Your task to perform on an android device: open app "Airtel Thanks" (install if not already installed) Image 0: 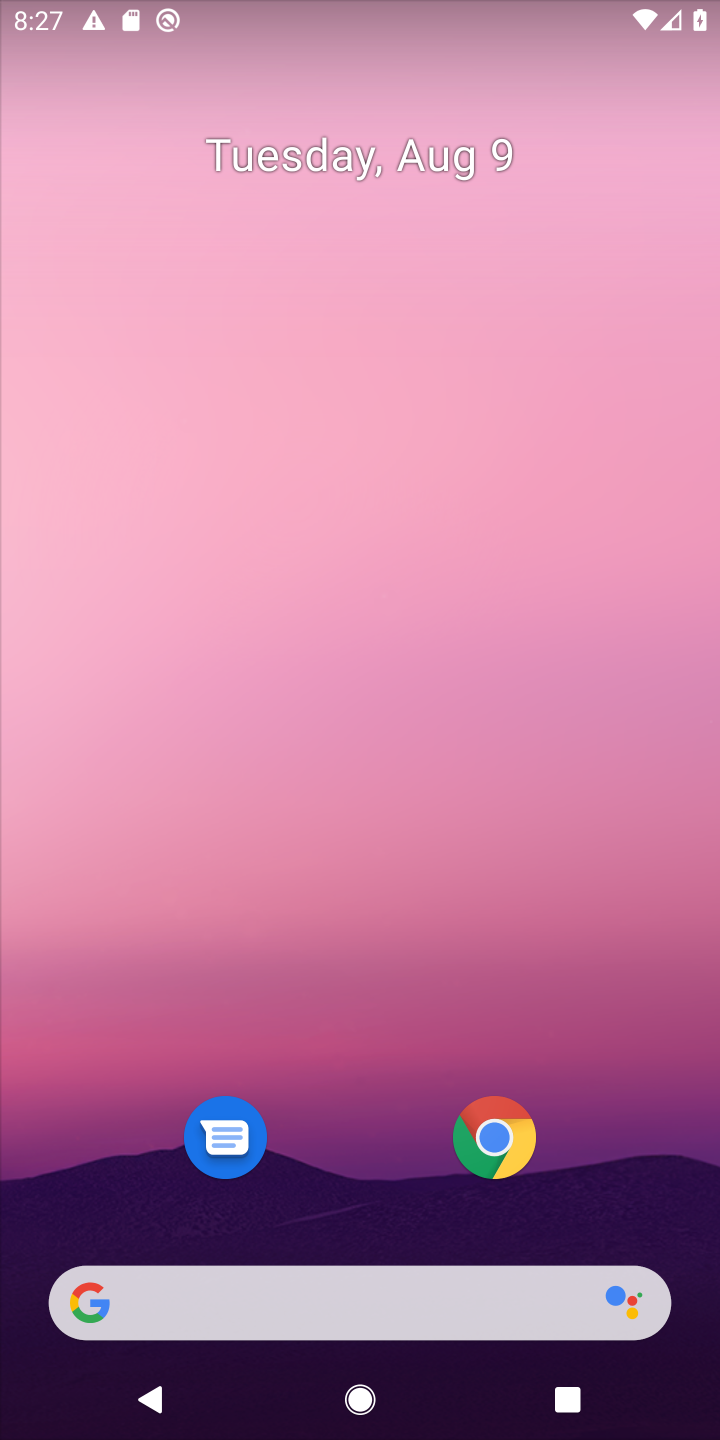
Step 0: press home button
Your task to perform on an android device: open app "Airtel Thanks" (install if not already installed) Image 1: 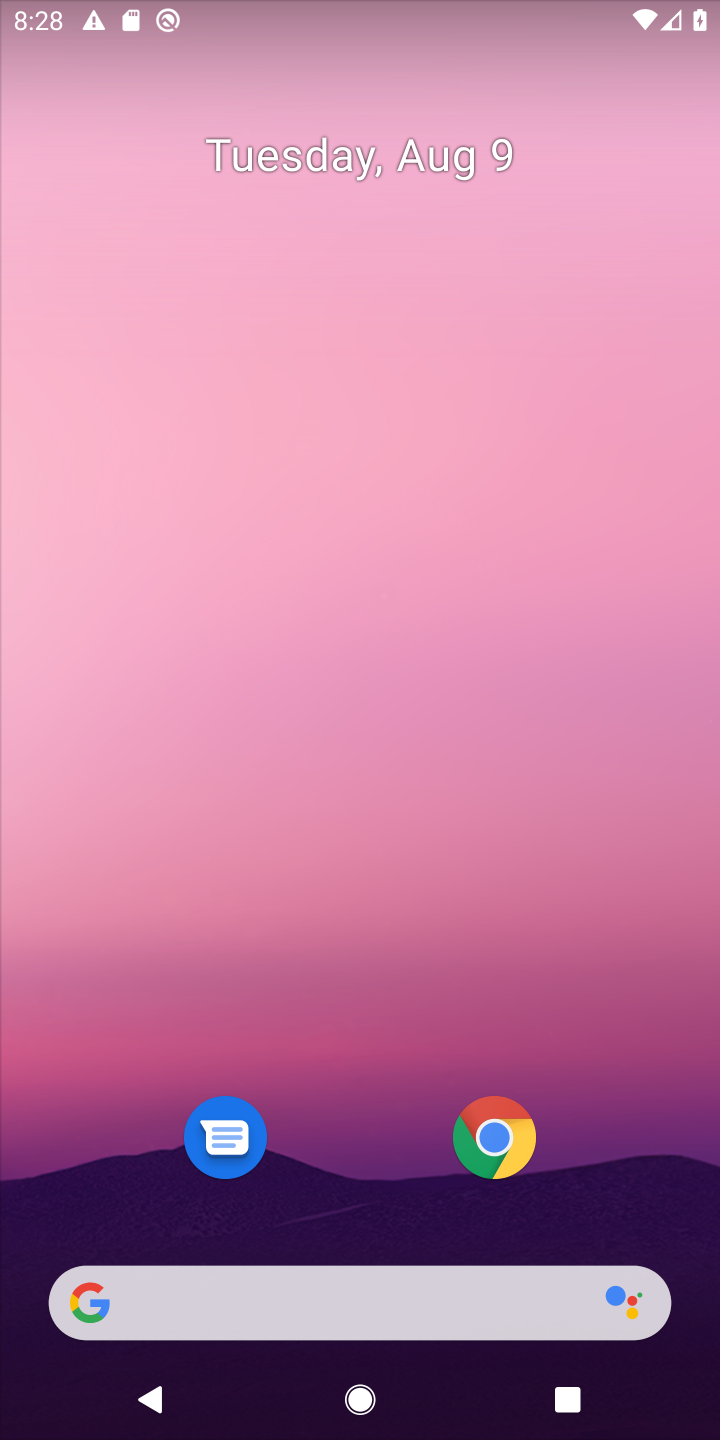
Step 1: drag from (632, 1142) to (607, 178)
Your task to perform on an android device: open app "Airtel Thanks" (install if not already installed) Image 2: 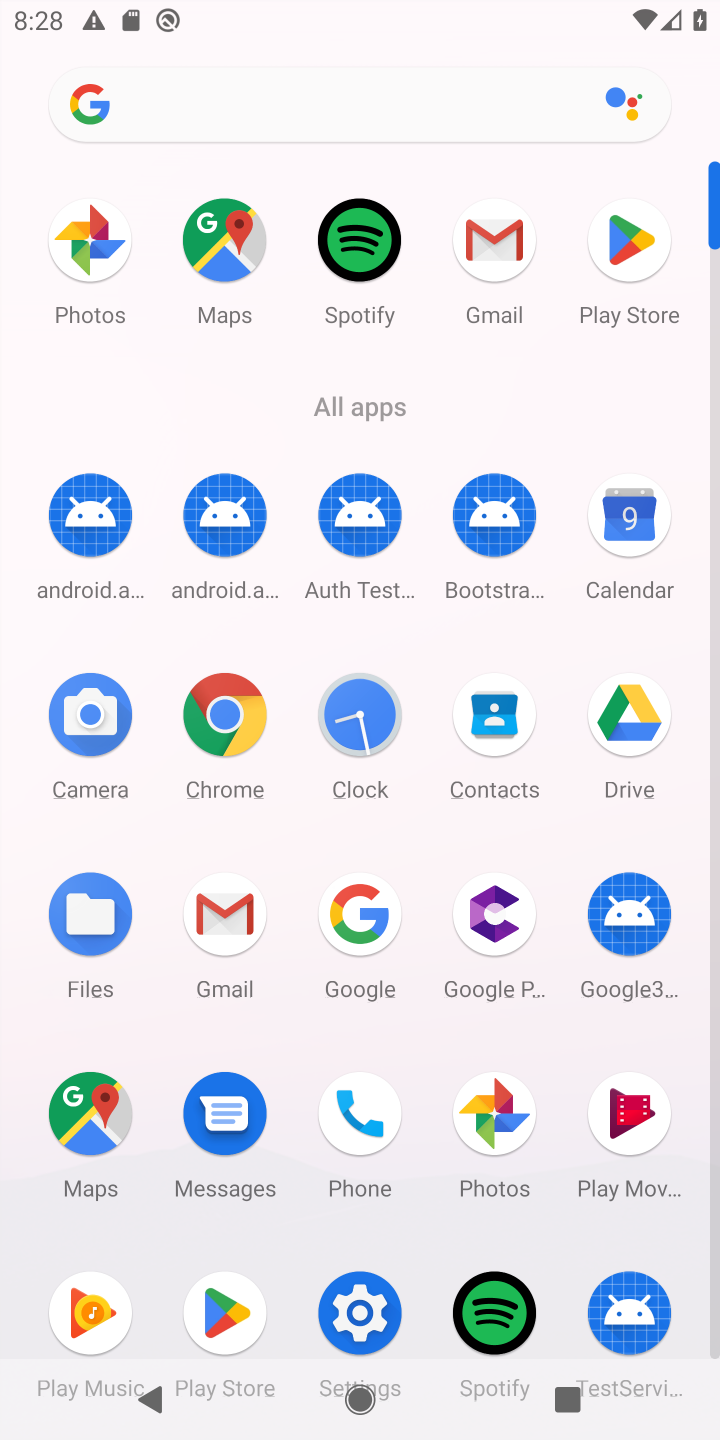
Step 2: click (624, 244)
Your task to perform on an android device: open app "Airtel Thanks" (install if not already installed) Image 3: 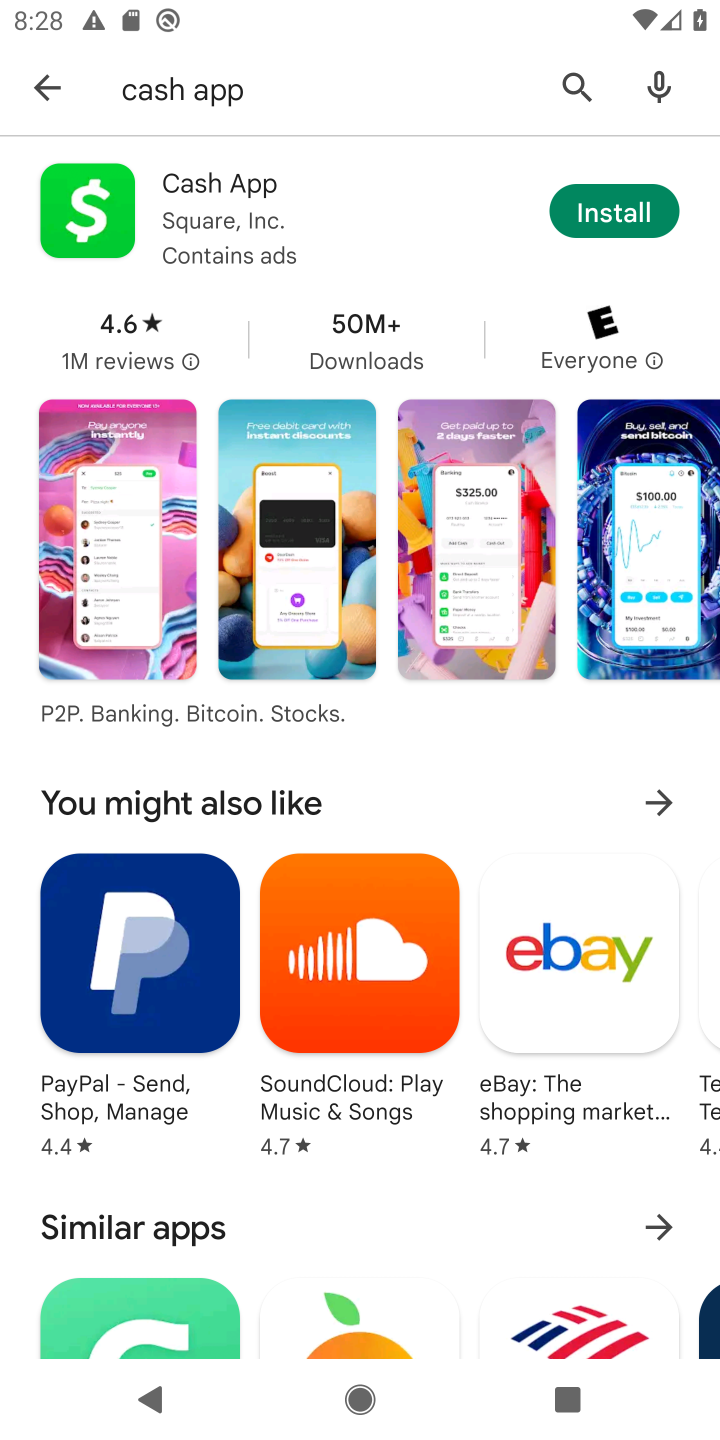
Step 3: click (568, 80)
Your task to perform on an android device: open app "Airtel Thanks" (install if not already installed) Image 4: 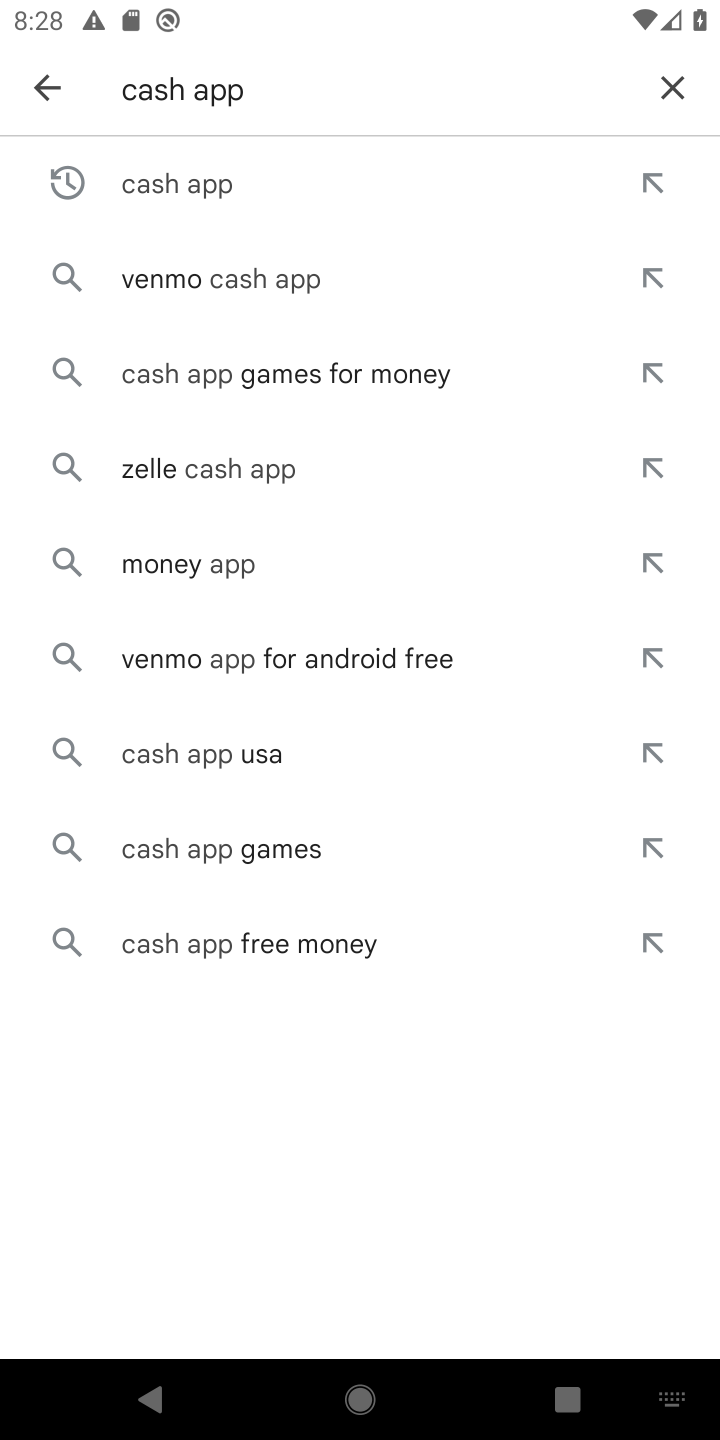
Step 4: click (671, 93)
Your task to perform on an android device: open app "Airtel Thanks" (install if not already installed) Image 5: 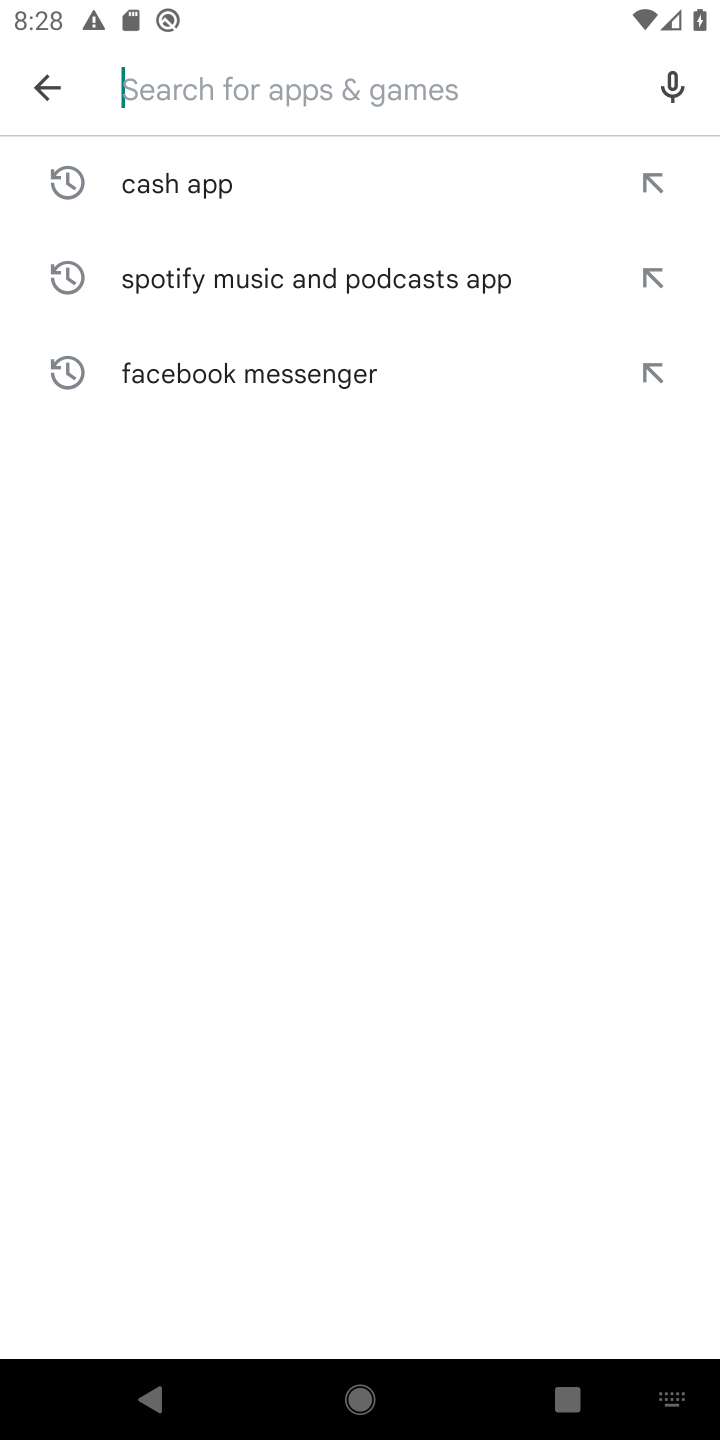
Step 5: type "airtel thanks"
Your task to perform on an android device: open app "Airtel Thanks" (install if not already installed) Image 6: 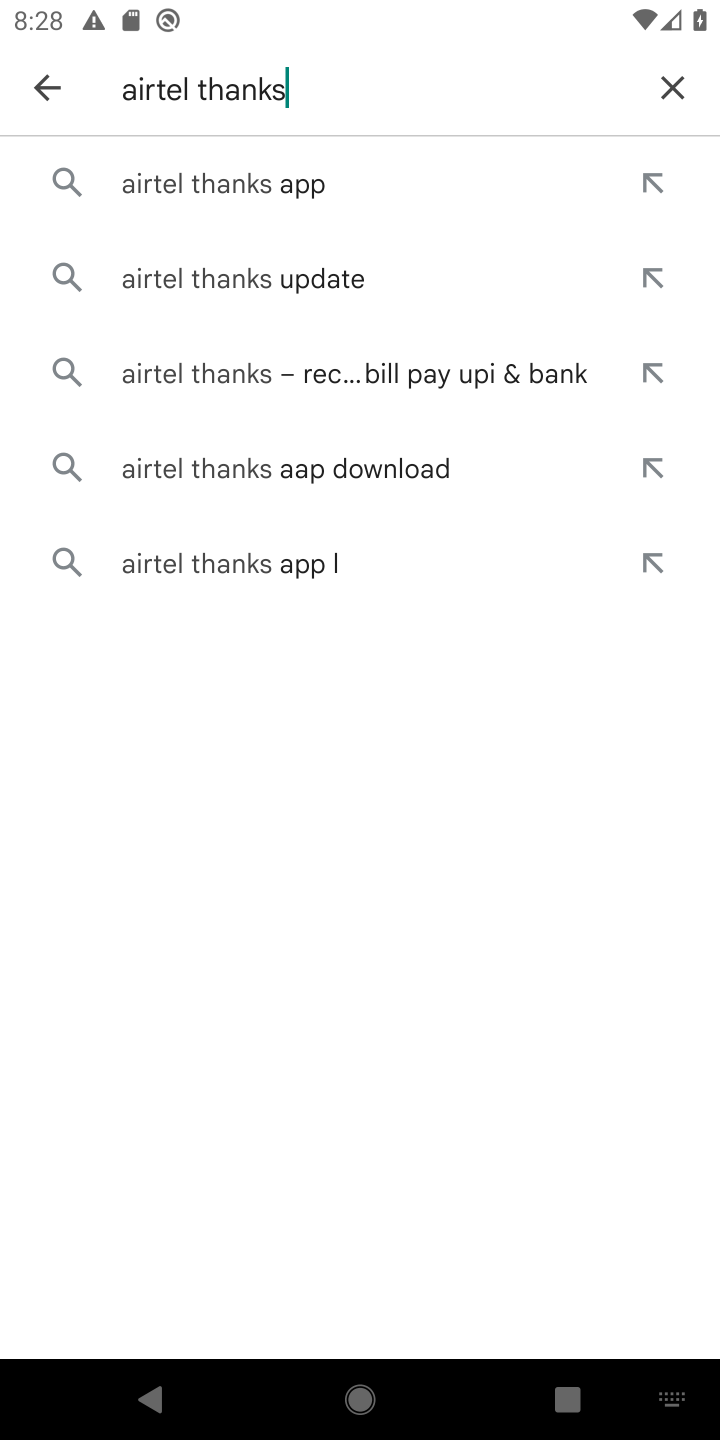
Step 6: click (322, 190)
Your task to perform on an android device: open app "Airtel Thanks" (install if not already installed) Image 7: 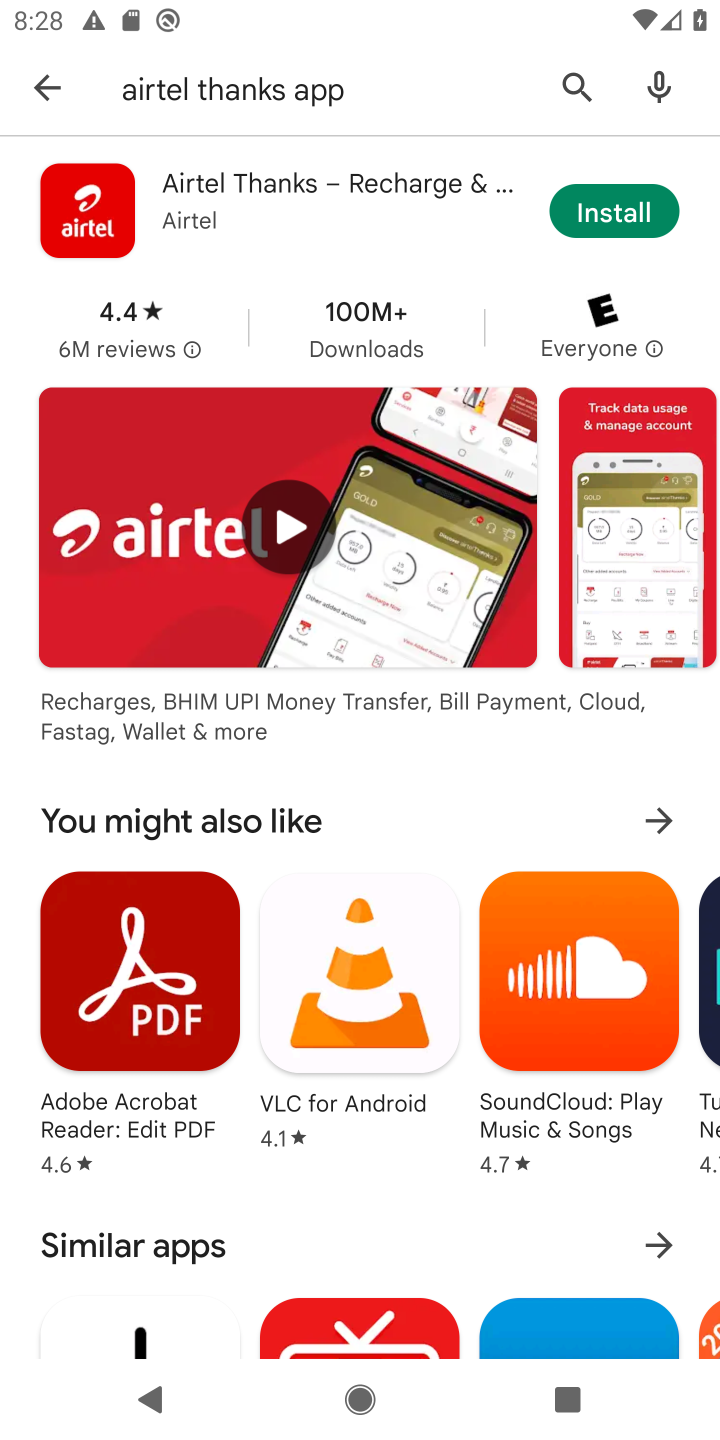
Step 7: click (614, 209)
Your task to perform on an android device: open app "Airtel Thanks" (install if not already installed) Image 8: 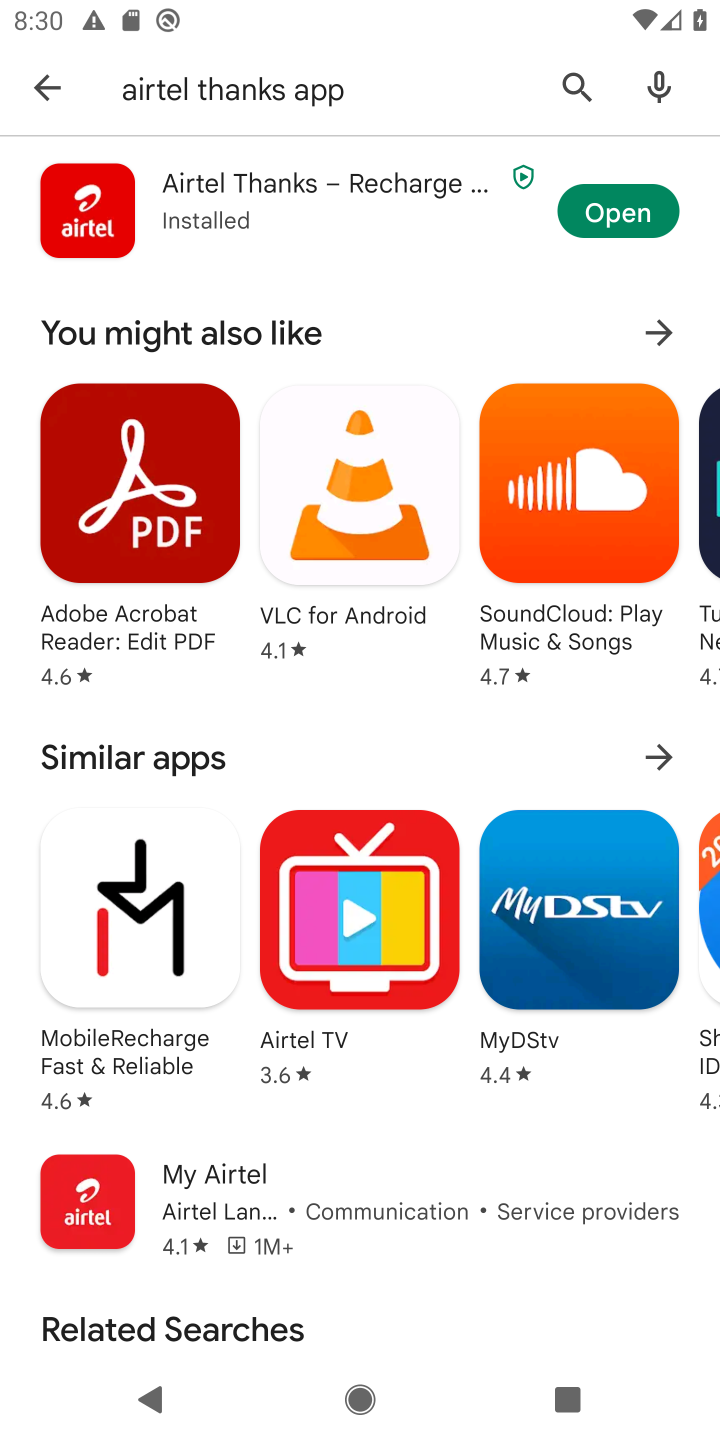
Step 8: click (638, 208)
Your task to perform on an android device: open app "Airtel Thanks" (install if not already installed) Image 9: 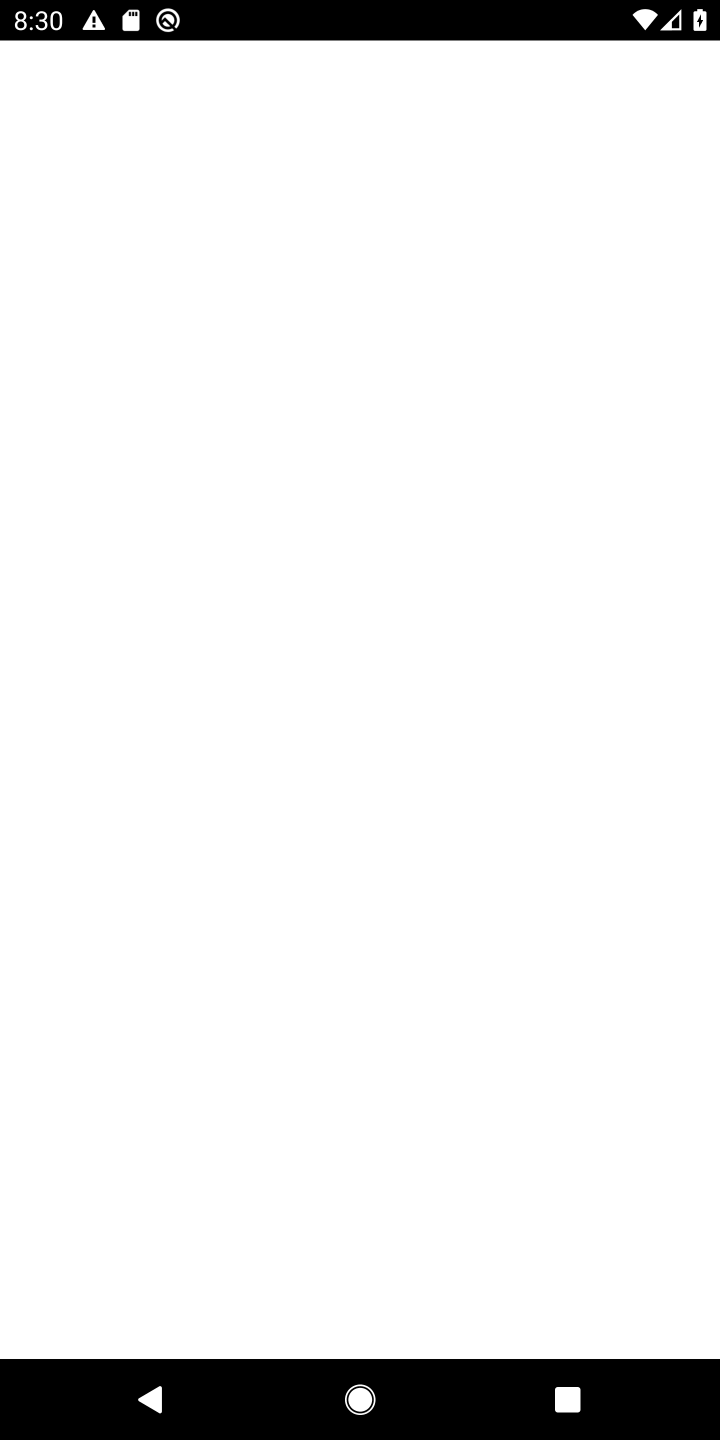
Step 9: task complete